Your task to perform on an android device: Open Amazon Image 0: 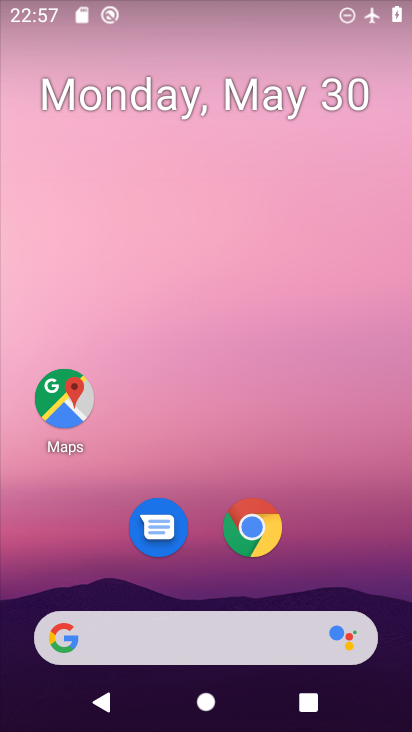
Step 0: click (239, 524)
Your task to perform on an android device: Open Amazon Image 1: 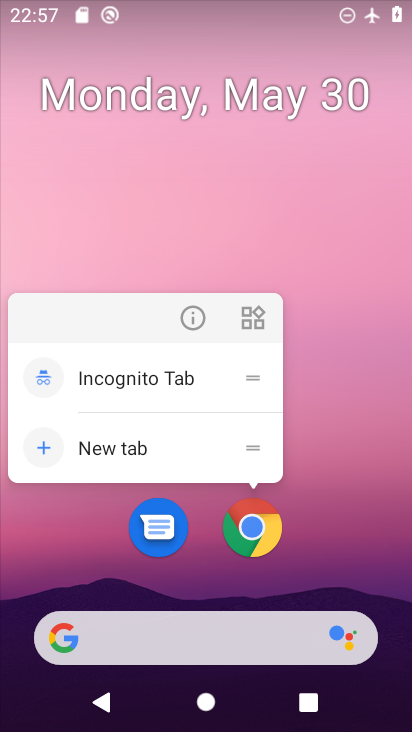
Step 1: click (381, 367)
Your task to perform on an android device: Open Amazon Image 2: 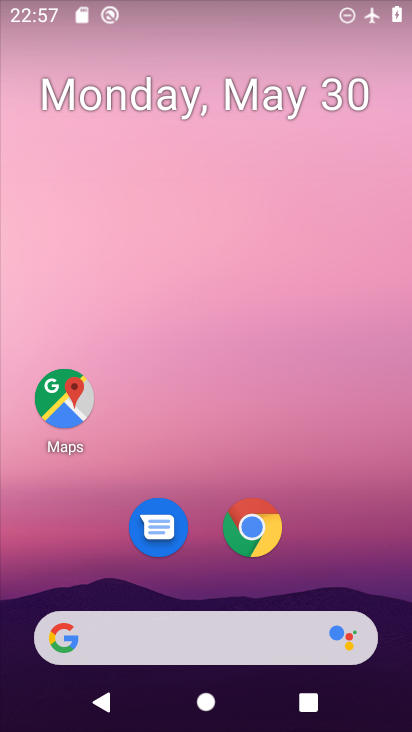
Step 2: click (252, 522)
Your task to perform on an android device: Open Amazon Image 3: 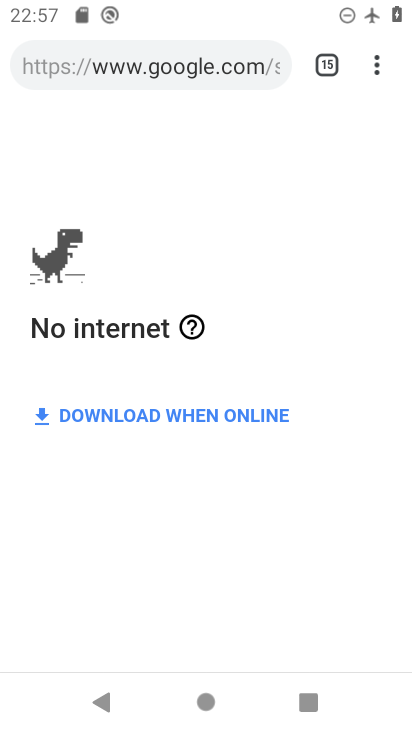
Step 3: click (371, 59)
Your task to perform on an android device: Open Amazon Image 4: 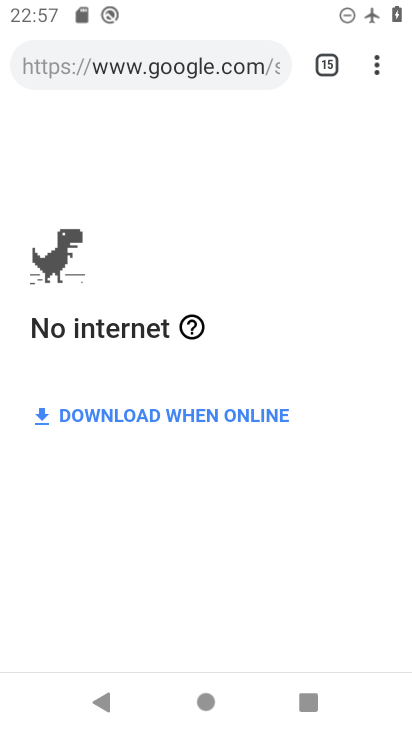
Step 4: click (372, 65)
Your task to perform on an android device: Open Amazon Image 5: 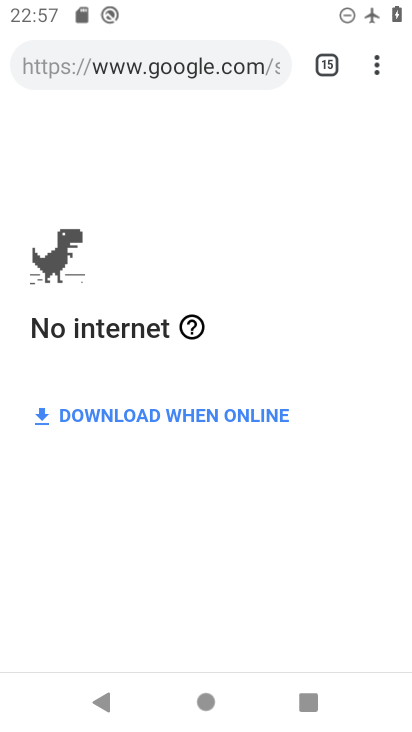
Step 5: click (381, 72)
Your task to perform on an android device: Open Amazon Image 6: 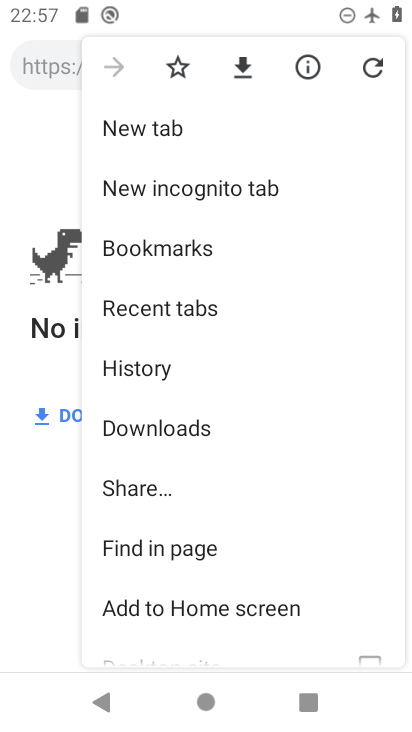
Step 6: click (155, 132)
Your task to perform on an android device: Open Amazon Image 7: 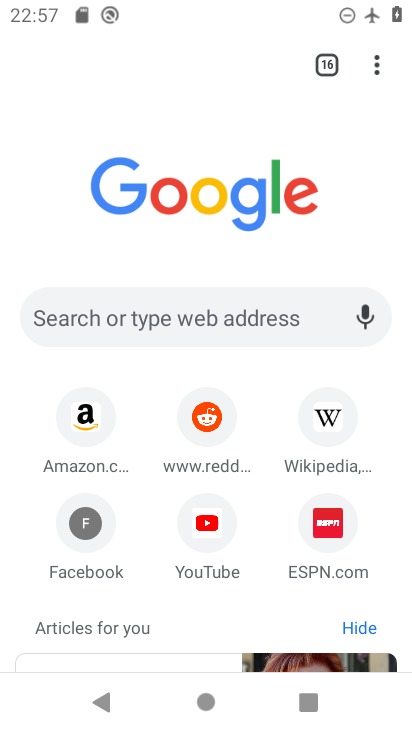
Step 7: click (92, 414)
Your task to perform on an android device: Open Amazon Image 8: 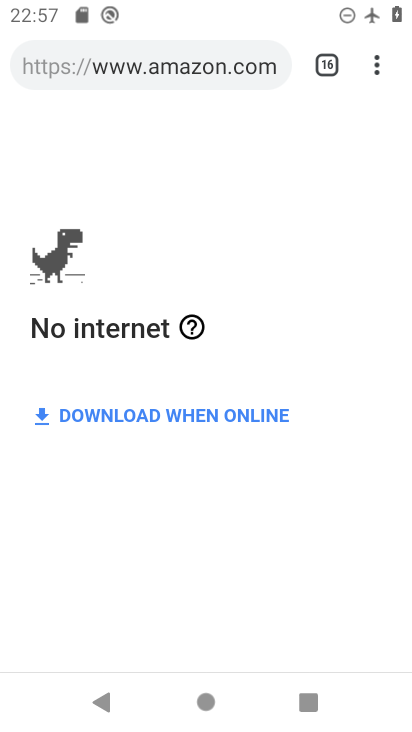
Step 8: task complete